Your task to perform on an android device: open a bookmark in the chrome app Image 0: 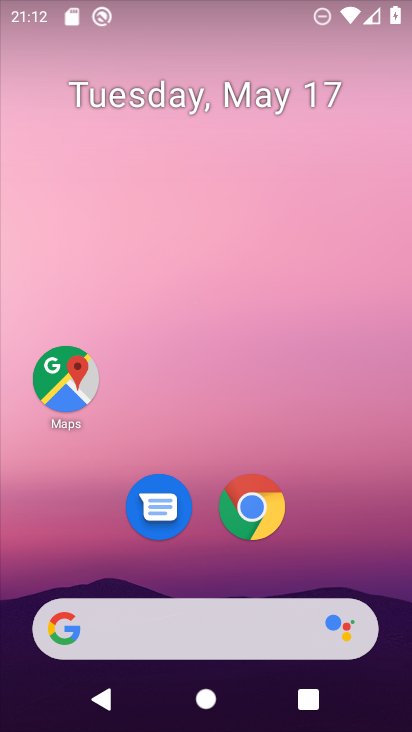
Step 0: click (260, 510)
Your task to perform on an android device: open a bookmark in the chrome app Image 1: 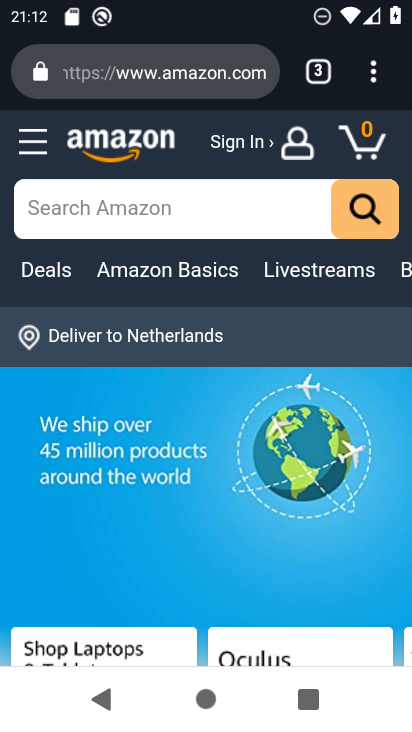
Step 1: click (381, 74)
Your task to perform on an android device: open a bookmark in the chrome app Image 2: 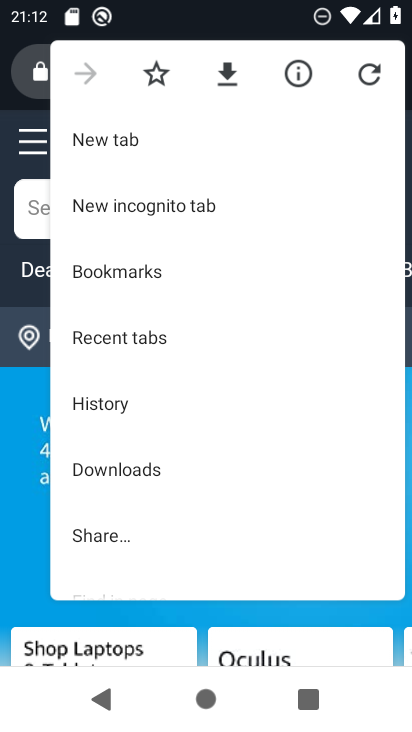
Step 2: click (85, 279)
Your task to perform on an android device: open a bookmark in the chrome app Image 3: 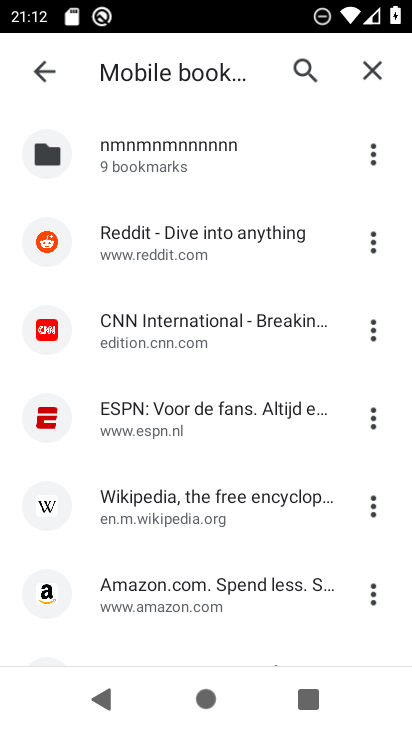
Step 3: click (183, 434)
Your task to perform on an android device: open a bookmark in the chrome app Image 4: 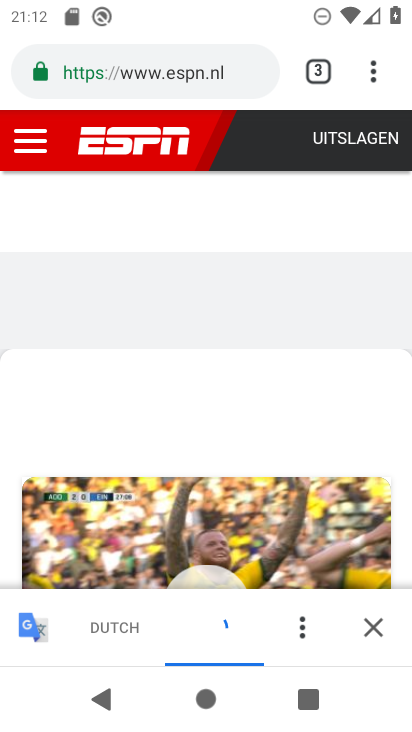
Step 4: task complete